Your task to perform on an android device: How do I get to the nearest Subway? Image 0: 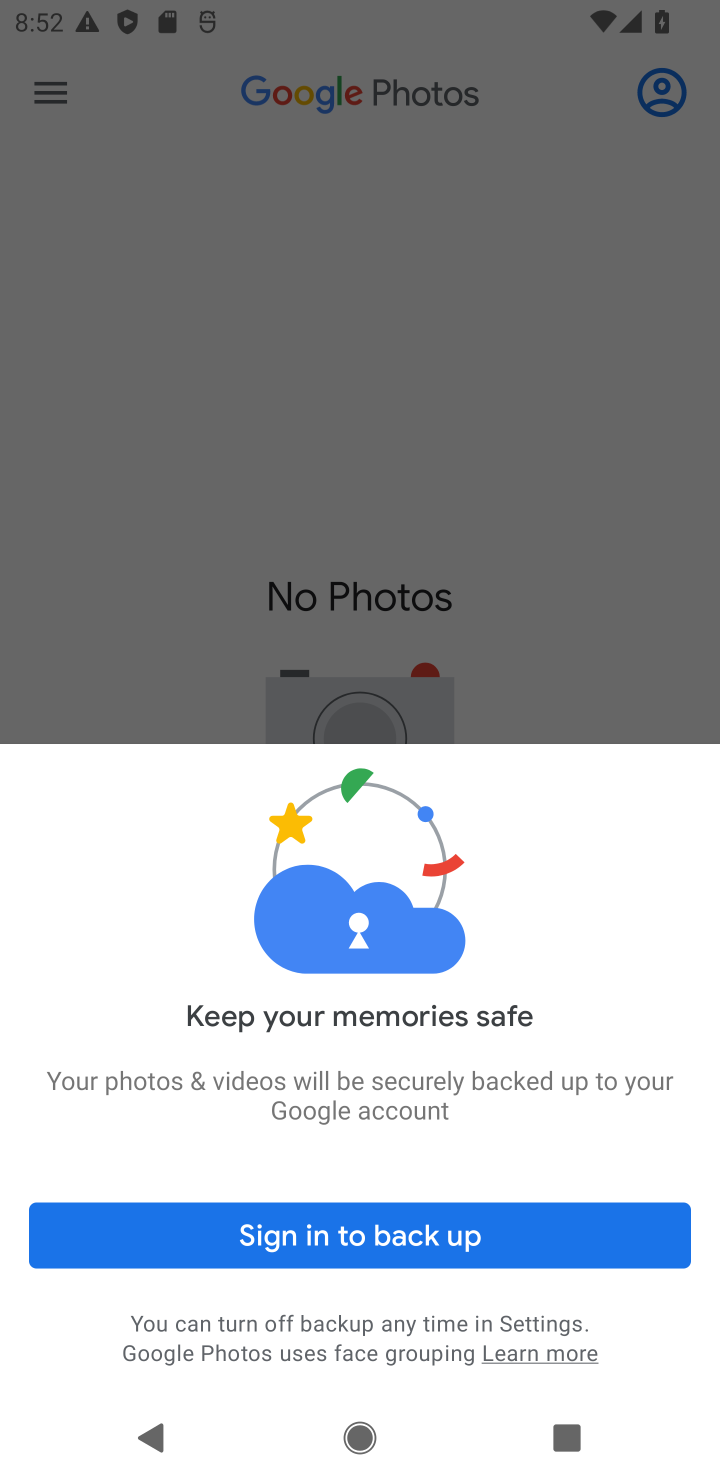
Step 0: press home button
Your task to perform on an android device: How do I get to the nearest Subway? Image 1: 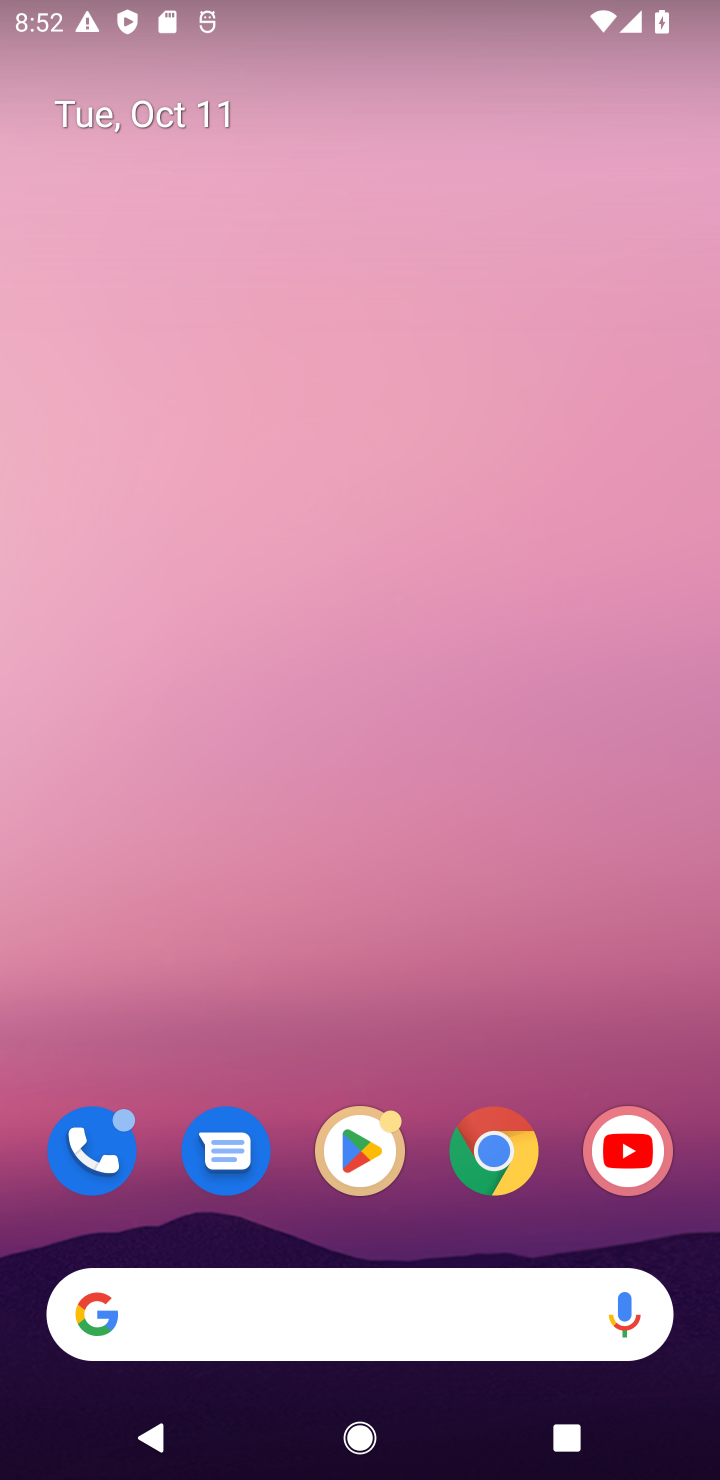
Step 1: click (487, 1147)
Your task to perform on an android device: How do I get to the nearest Subway? Image 2: 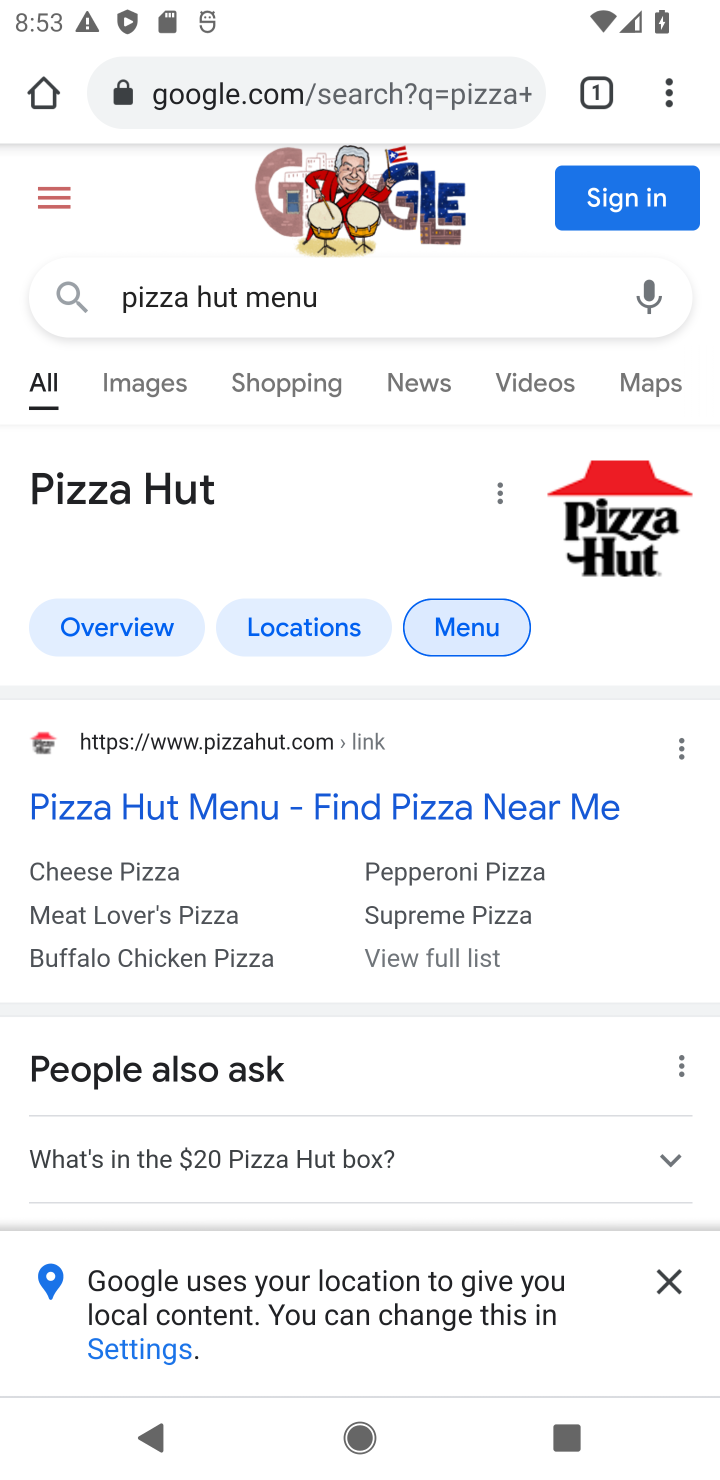
Step 2: drag from (634, 1019) to (539, 986)
Your task to perform on an android device: How do I get to the nearest Subway? Image 3: 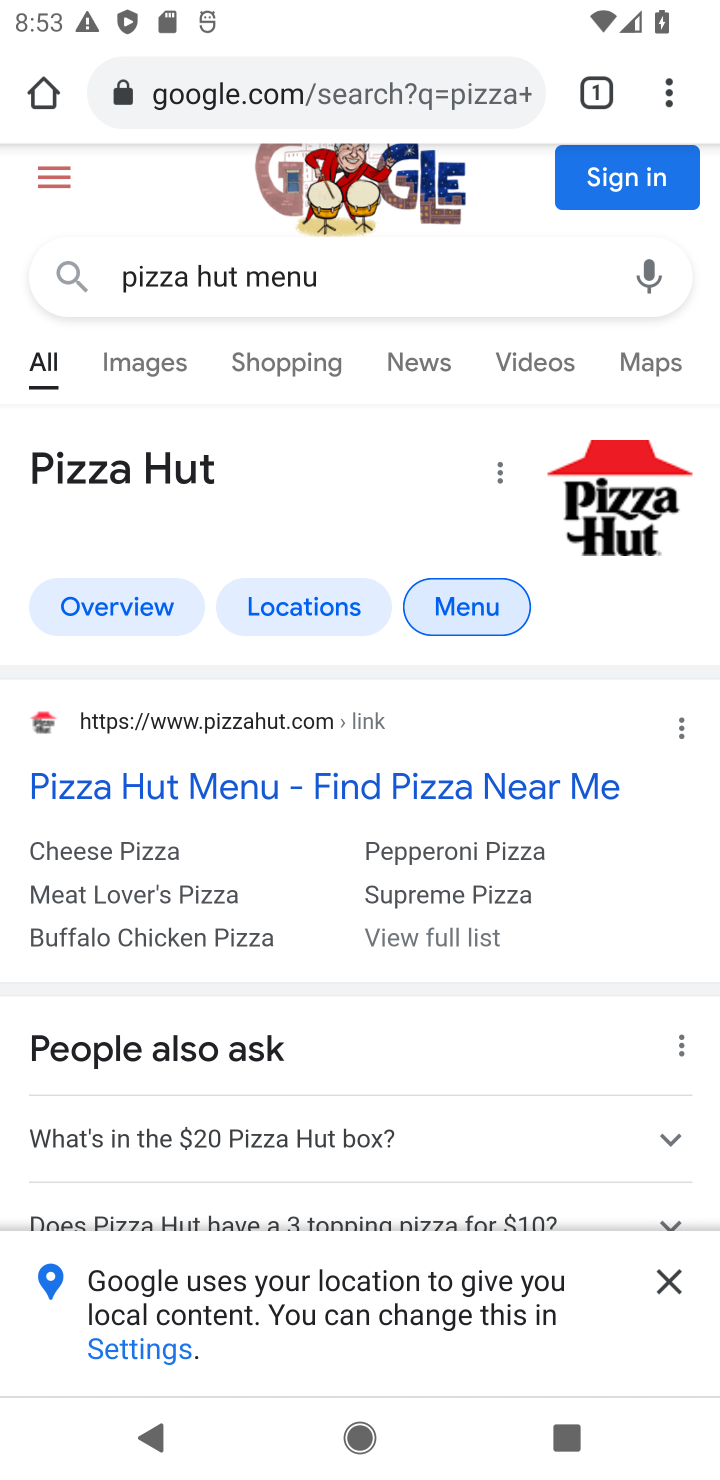
Step 3: click (325, 95)
Your task to perform on an android device: How do I get to the nearest Subway? Image 4: 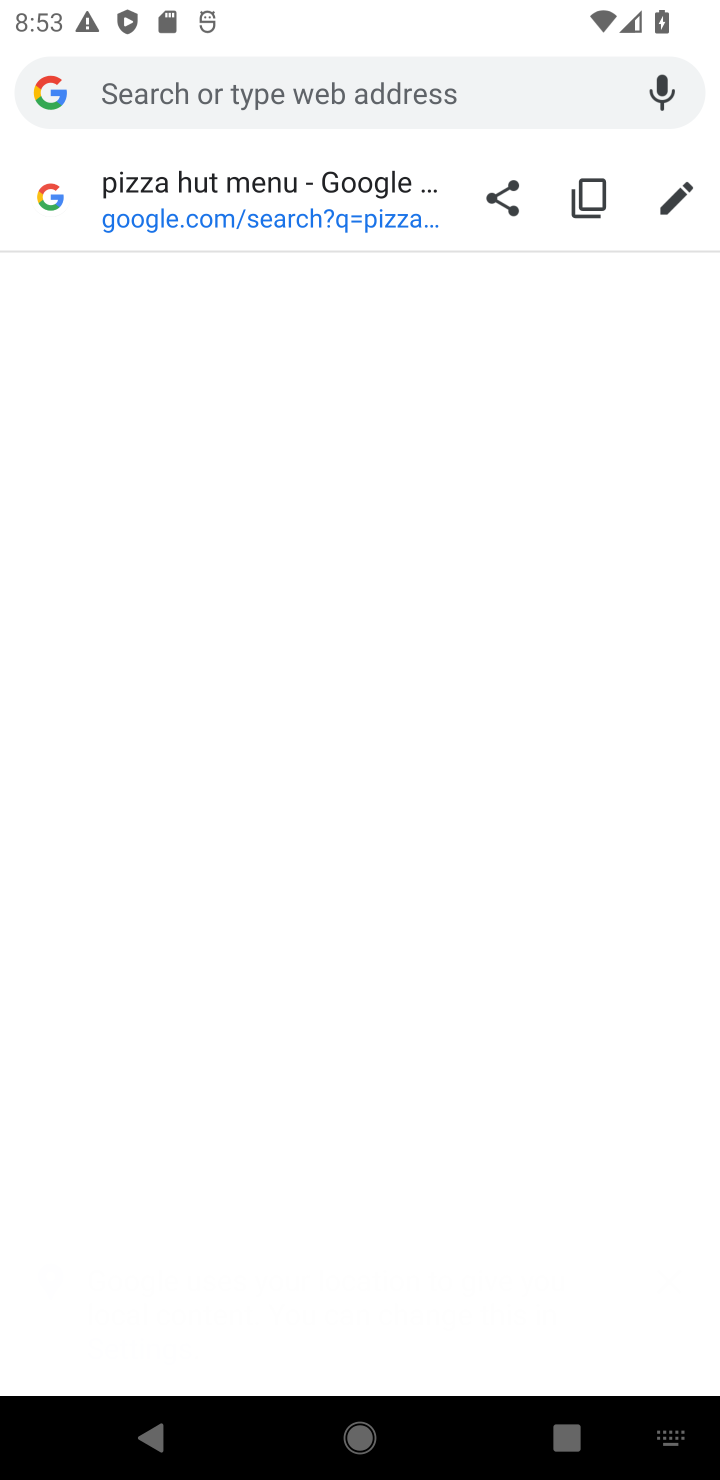
Step 4: type "nearest subway"
Your task to perform on an android device: How do I get to the nearest Subway? Image 5: 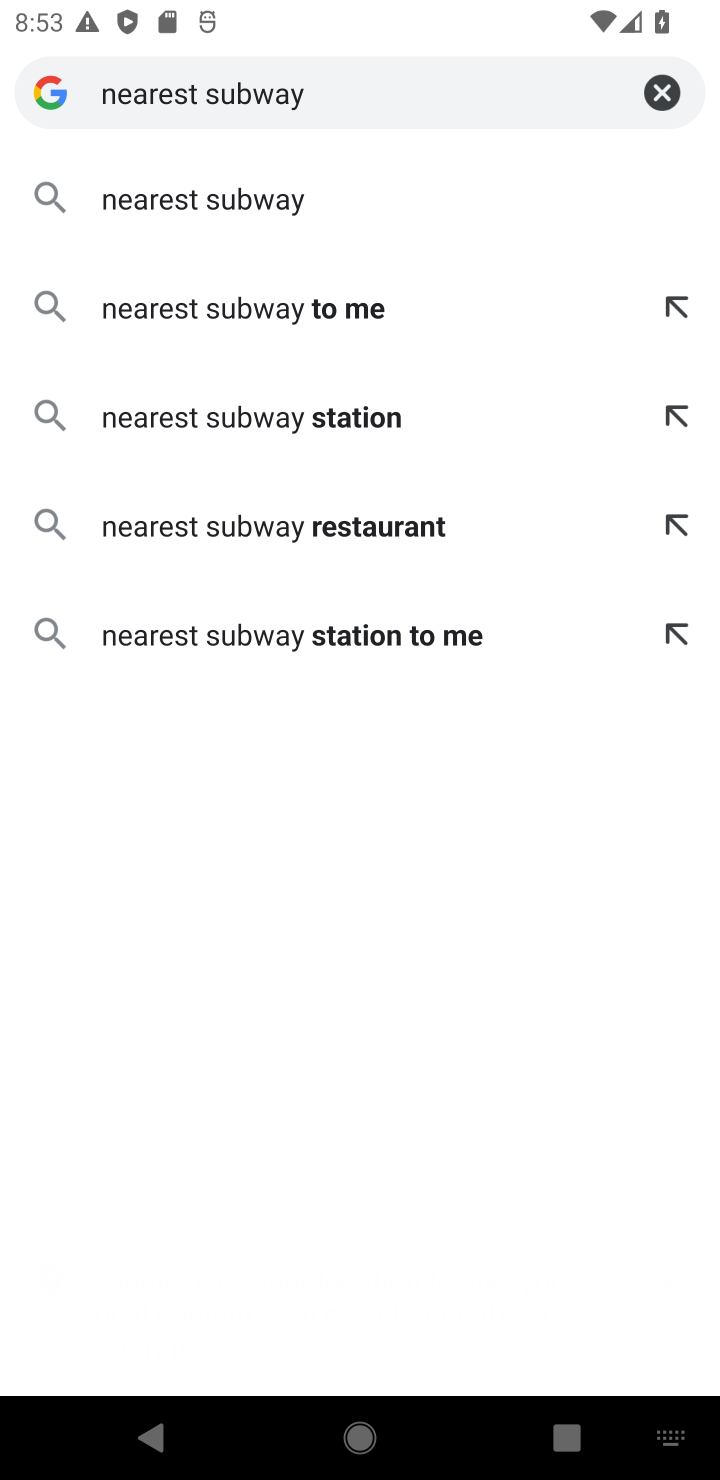
Step 5: click (389, 212)
Your task to perform on an android device: How do I get to the nearest Subway? Image 6: 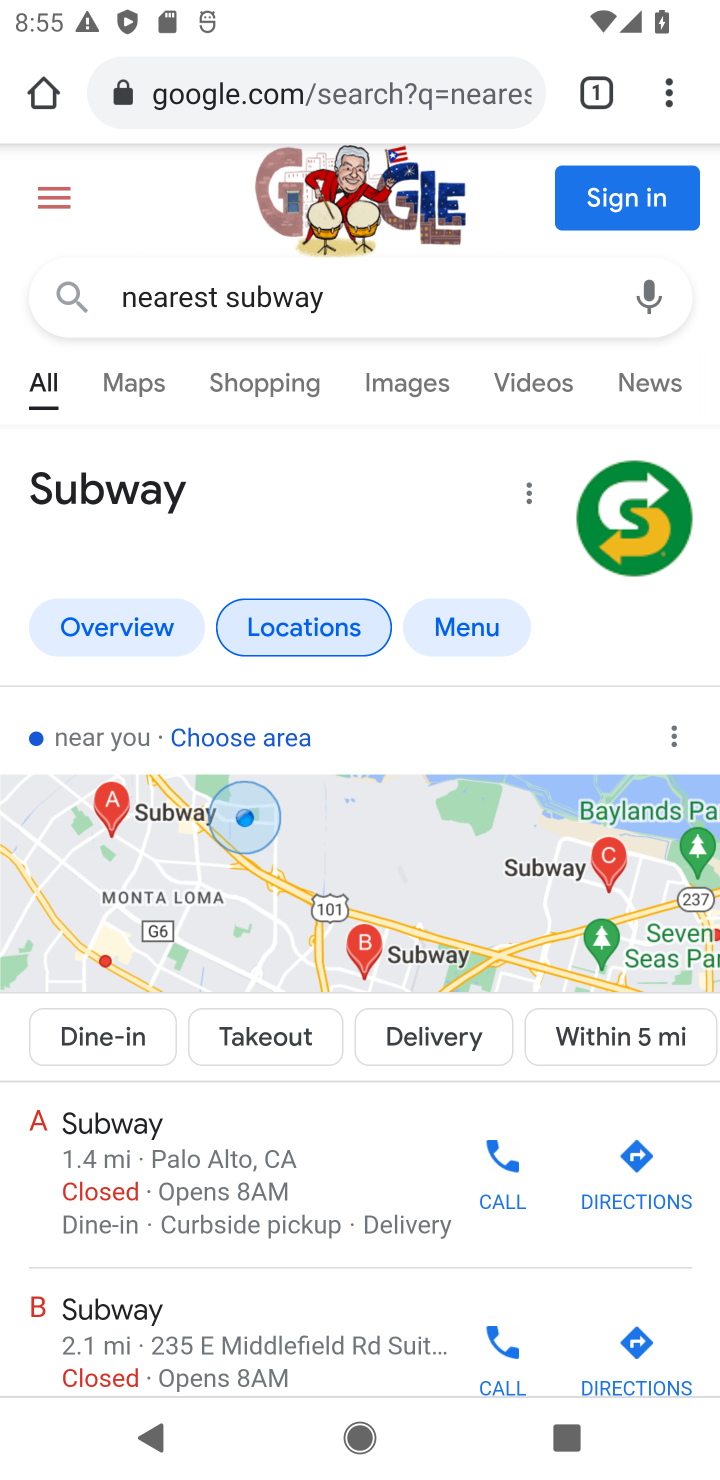
Step 6: task complete